Your task to perform on an android device: Search for hotels in London Image 0: 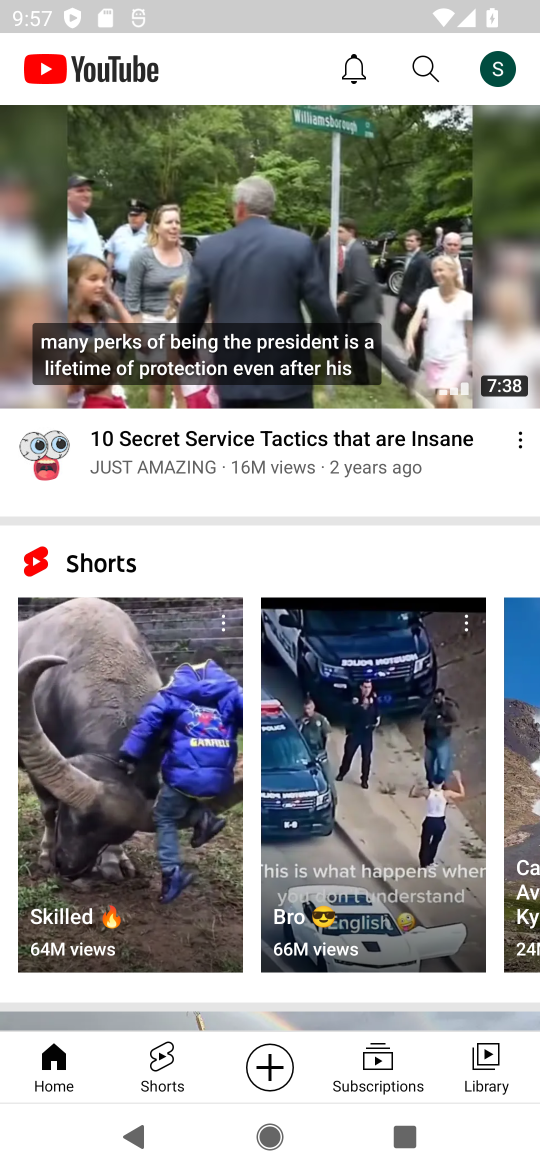
Step 0: press home button
Your task to perform on an android device: Search for hotels in London Image 1: 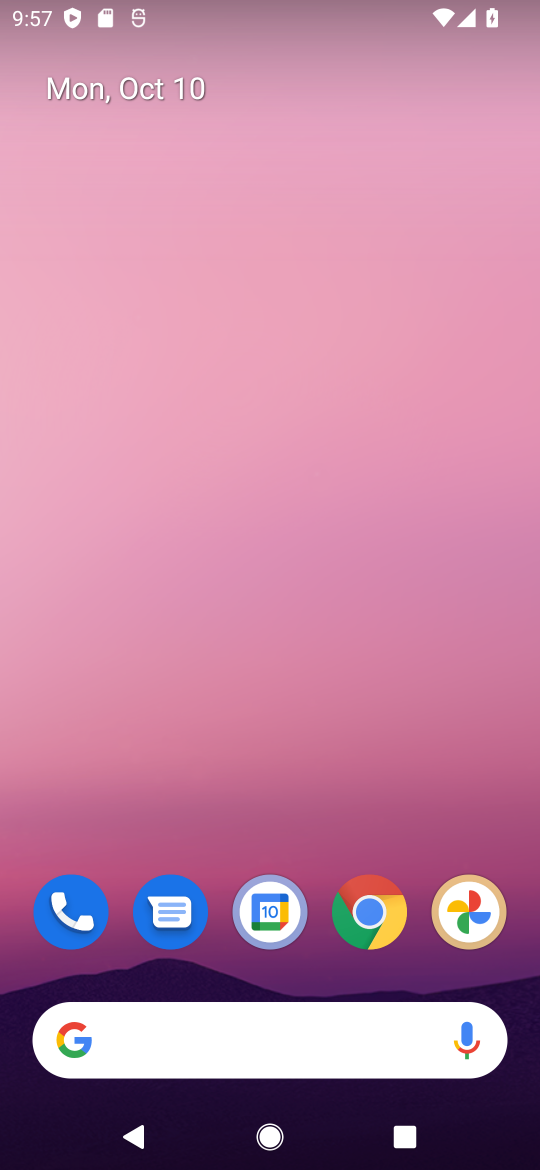
Step 1: click (73, 1038)
Your task to perform on an android device: Search for hotels in London Image 2: 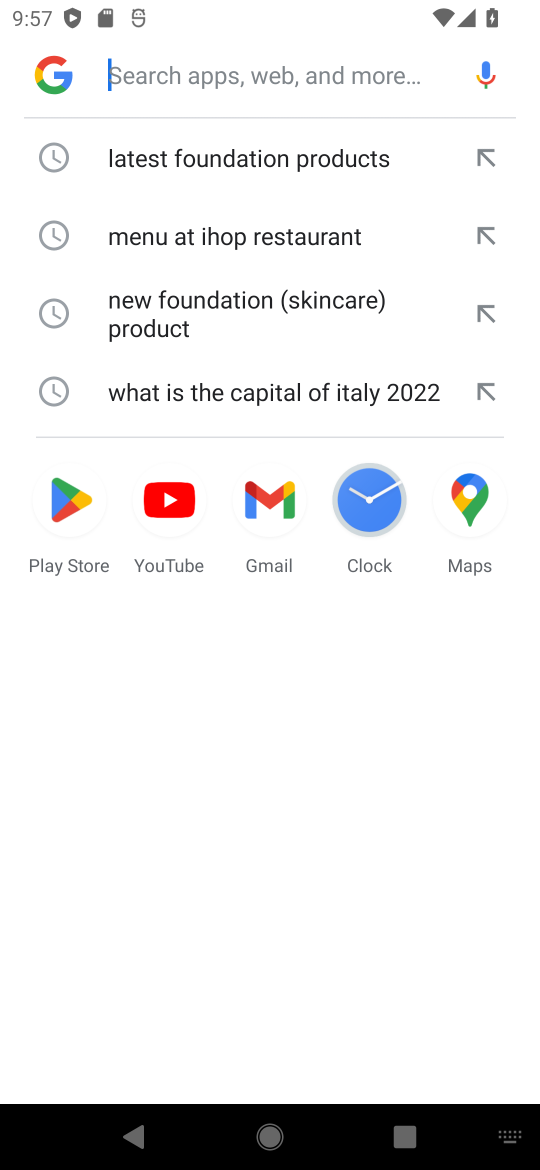
Step 2: click (211, 84)
Your task to perform on an android device: Search for hotels in London Image 3: 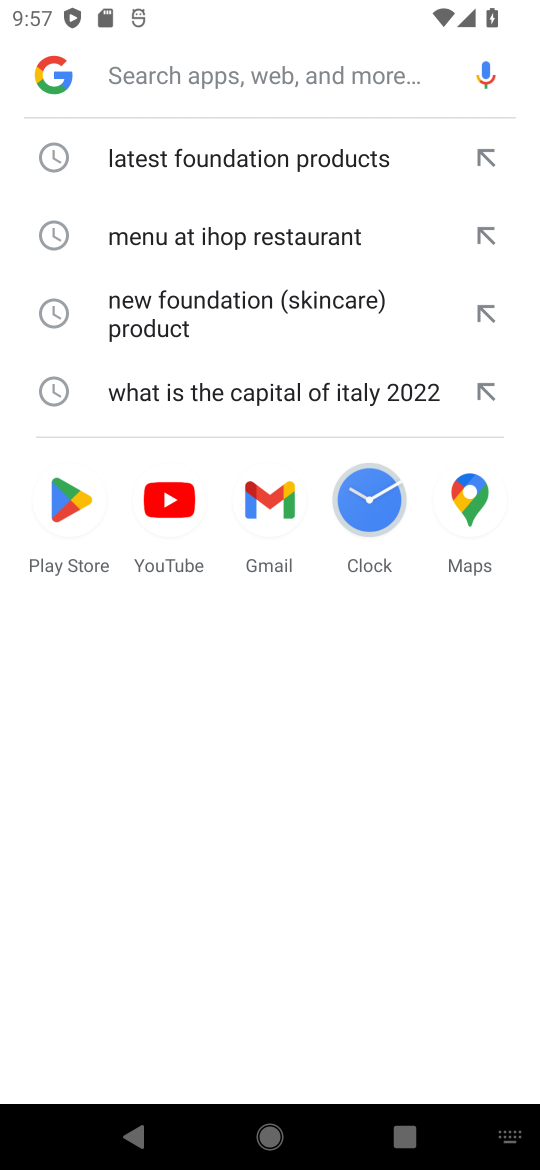
Step 3: type "HOTELS IN LONDON"
Your task to perform on an android device: Search for hotels in London Image 4: 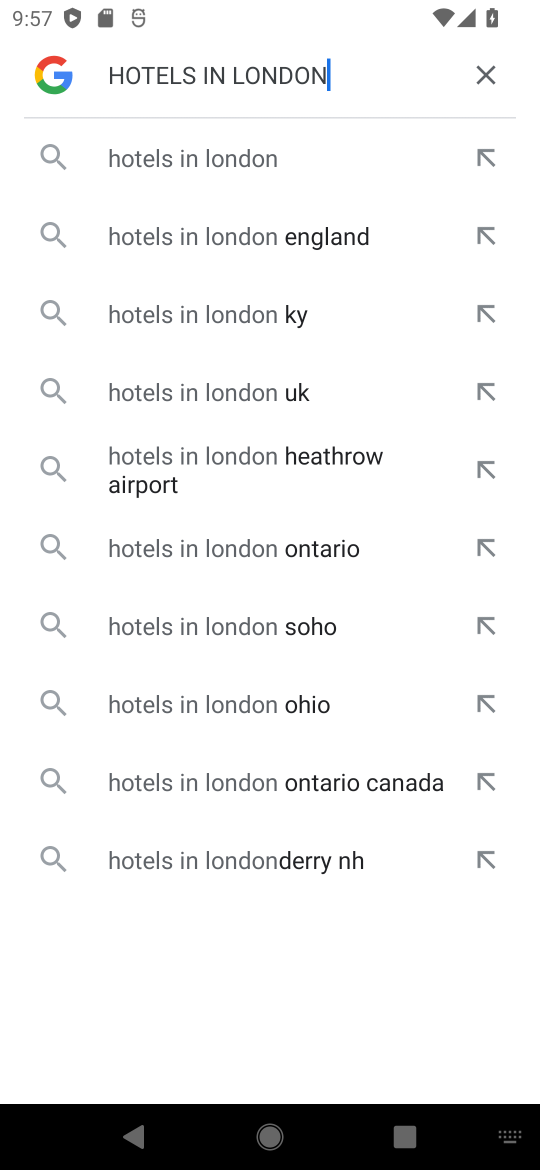
Step 4: click (321, 169)
Your task to perform on an android device: Search for hotels in London Image 5: 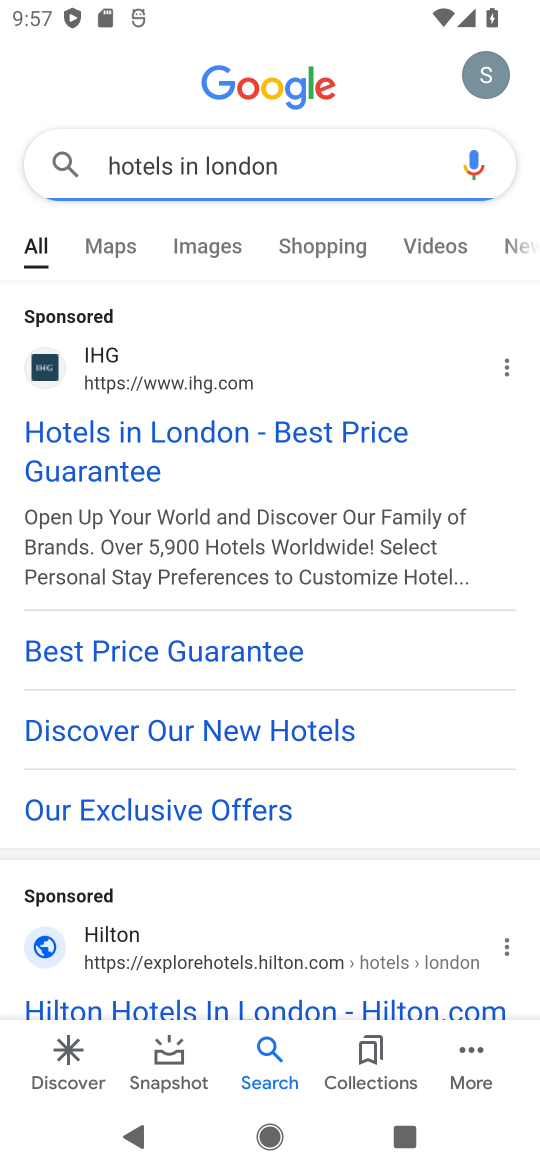
Step 5: task complete